Your task to perform on an android device: Empty the shopping cart on newegg.com. Add "dell xps" to the cart on newegg.com, then select checkout. Image 0: 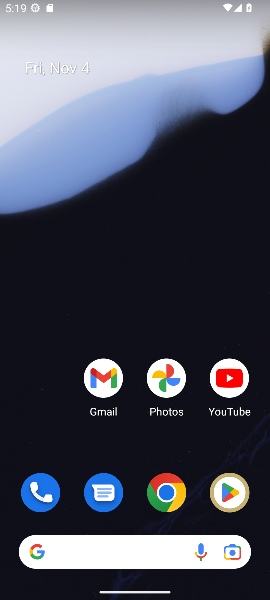
Step 0: drag from (139, 467) to (94, 82)
Your task to perform on an android device: Empty the shopping cart on newegg.com. Add "dell xps" to the cart on newegg.com, then select checkout. Image 1: 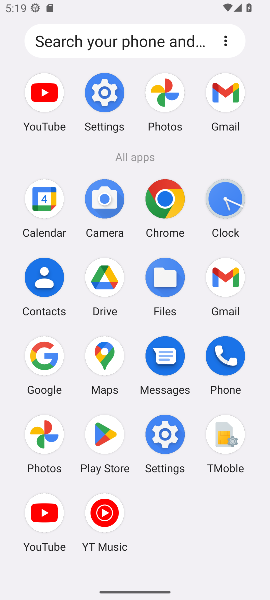
Step 1: click (160, 199)
Your task to perform on an android device: Empty the shopping cart on newegg.com. Add "dell xps" to the cart on newegg.com, then select checkout. Image 2: 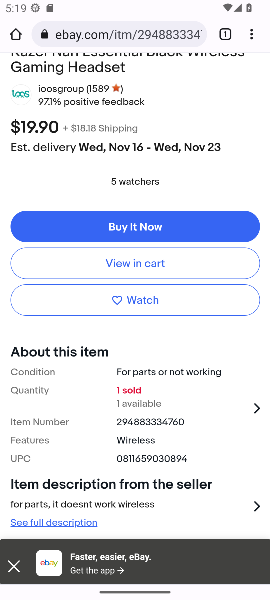
Step 2: click (136, 40)
Your task to perform on an android device: Empty the shopping cart on newegg.com. Add "dell xps" to the cart on newegg.com, then select checkout. Image 3: 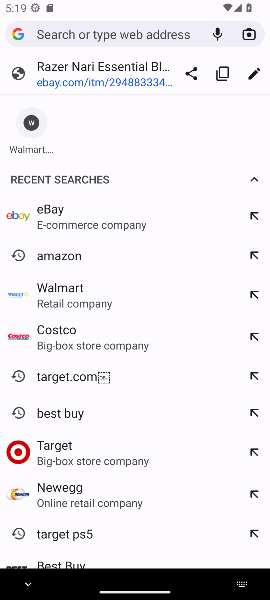
Step 3: type "newegg.com"
Your task to perform on an android device: Empty the shopping cart on newegg.com. Add "dell xps" to the cart on newegg.com, then select checkout. Image 4: 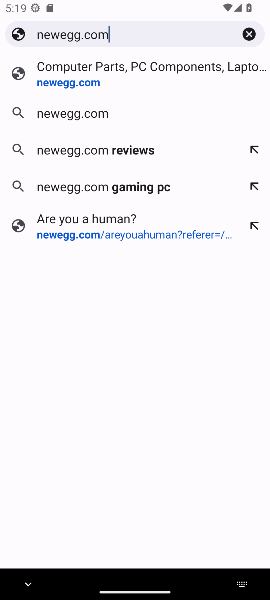
Step 4: press enter
Your task to perform on an android device: Empty the shopping cart on newegg.com. Add "dell xps" to the cart on newegg.com, then select checkout. Image 5: 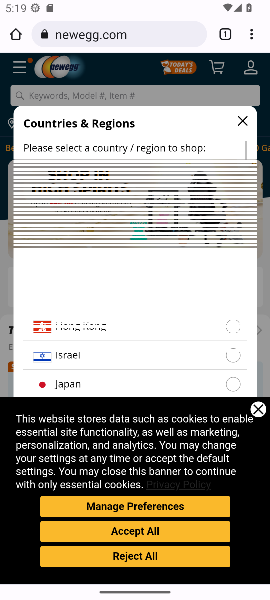
Step 5: click (235, 119)
Your task to perform on an android device: Empty the shopping cart on newegg.com. Add "dell xps" to the cart on newegg.com, then select checkout. Image 6: 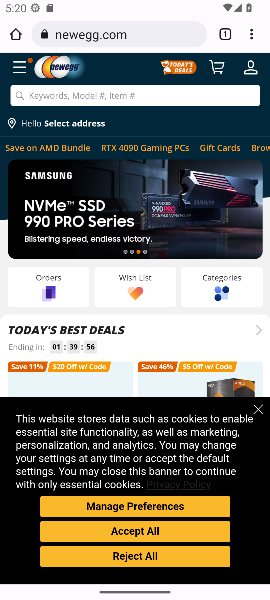
Step 6: click (216, 70)
Your task to perform on an android device: Empty the shopping cart on newegg.com. Add "dell xps" to the cart on newegg.com, then select checkout. Image 7: 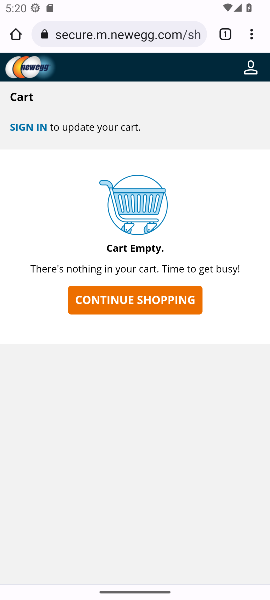
Step 7: click (160, 306)
Your task to perform on an android device: Empty the shopping cart on newegg.com. Add "dell xps" to the cart on newegg.com, then select checkout. Image 8: 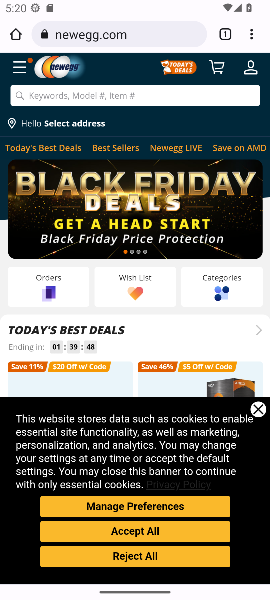
Step 8: click (126, 100)
Your task to perform on an android device: Empty the shopping cart on newegg.com. Add "dell xps" to the cart on newegg.com, then select checkout. Image 9: 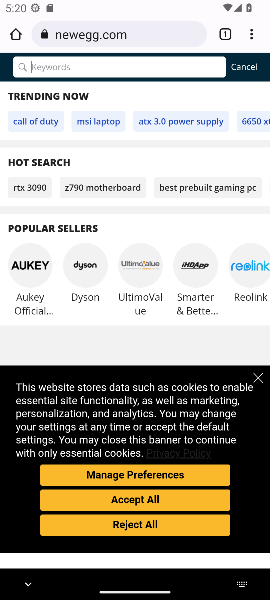
Step 9: type "dell xps"
Your task to perform on an android device: Empty the shopping cart on newegg.com. Add "dell xps" to the cart on newegg.com, then select checkout. Image 10: 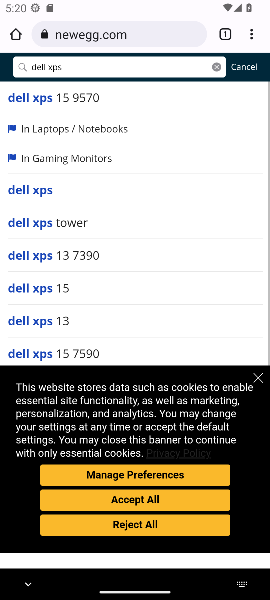
Step 10: press enter
Your task to perform on an android device: Empty the shopping cart on newegg.com. Add "dell xps" to the cart on newegg.com, then select checkout. Image 11: 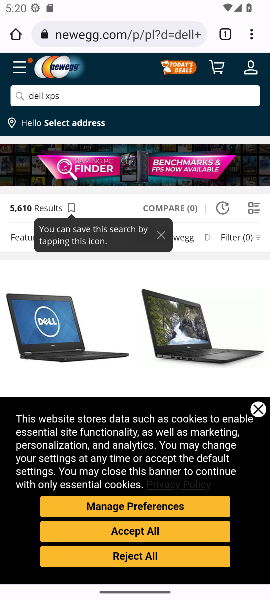
Step 11: drag from (209, 351) to (203, 153)
Your task to perform on an android device: Empty the shopping cart on newegg.com. Add "dell xps" to the cart on newegg.com, then select checkout. Image 12: 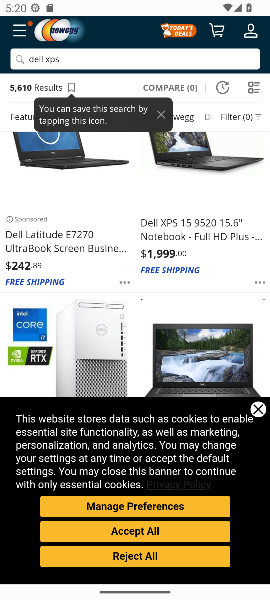
Step 12: click (193, 227)
Your task to perform on an android device: Empty the shopping cart on newegg.com. Add "dell xps" to the cart on newegg.com, then select checkout. Image 13: 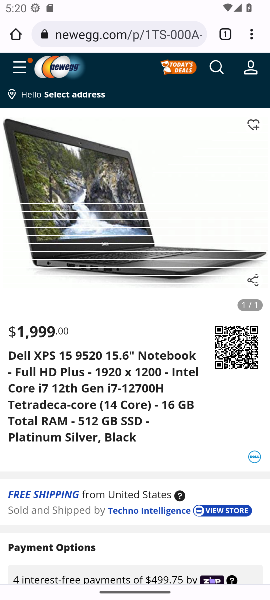
Step 13: drag from (158, 418) to (182, 98)
Your task to perform on an android device: Empty the shopping cart on newegg.com. Add "dell xps" to the cart on newegg.com, then select checkout. Image 14: 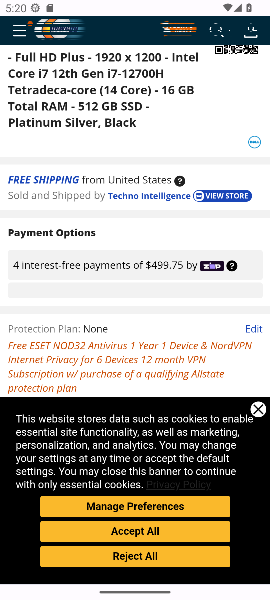
Step 14: click (254, 405)
Your task to perform on an android device: Empty the shopping cart on newegg.com. Add "dell xps" to the cart on newegg.com, then select checkout. Image 15: 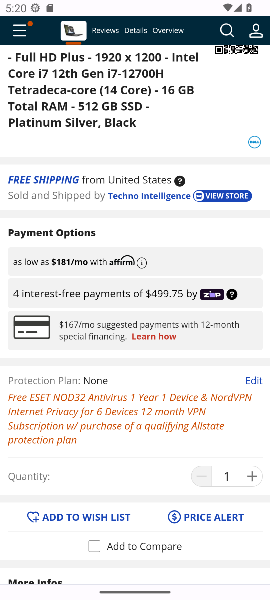
Step 15: drag from (140, 505) to (166, 327)
Your task to perform on an android device: Empty the shopping cart on newegg.com. Add "dell xps" to the cart on newegg.com, then select checkout. Image 16: 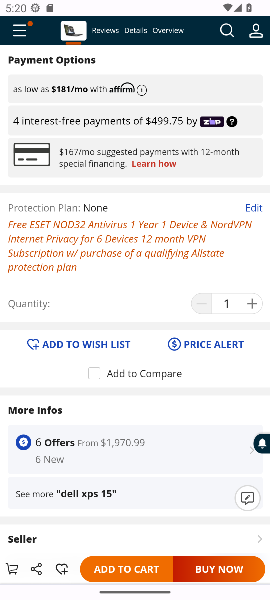
Step 16: click (117, 573)
Your task to perform on an android device: Empty the shopping cart on newegg.com. Add "dell xps" to the cart on newegg.com, then select checkout. Image 17: 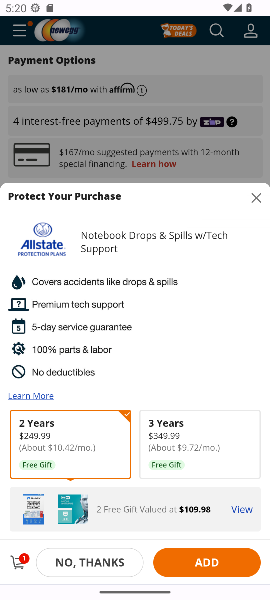
Step 17: click (22, 564)
Your task to perform on an android device: Empty the shopping cart on newegg.com. Add "dell xps" to the cart on newegg.com, then select checkout. Image 18: 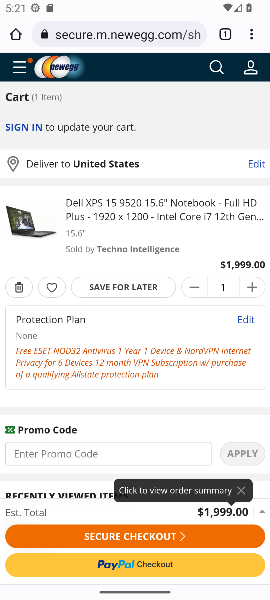
Step 18: click (169, 534)
Your task to perform on an android device: Empty the shopping cart on newegg.com. Add "dell xps" to the cart on newegg.com, then select checkout. Image 19: 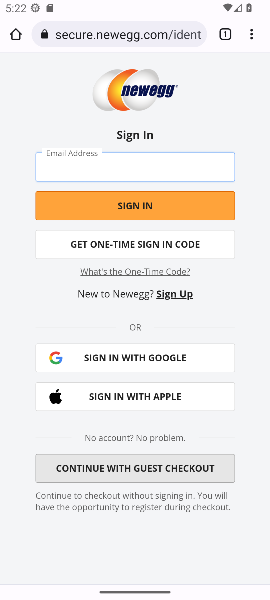
Step 19: task complete